Your task to perform on an android device: What's the weather going to be tomorrow? Image 0: 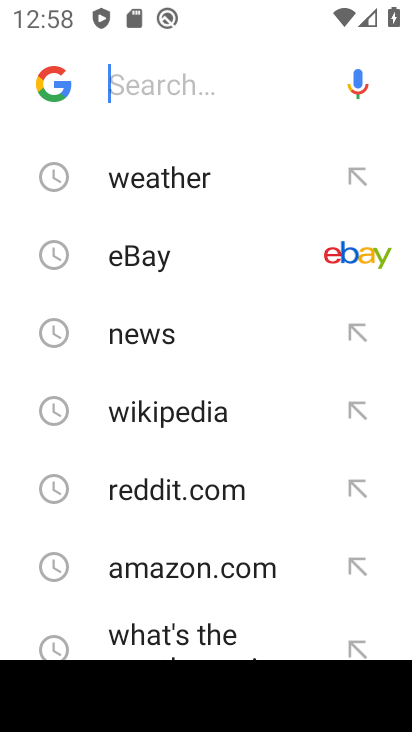
Step 0: press home button
Your task to perform on an android device: What's the weather going to be tomorrow? Image 1: 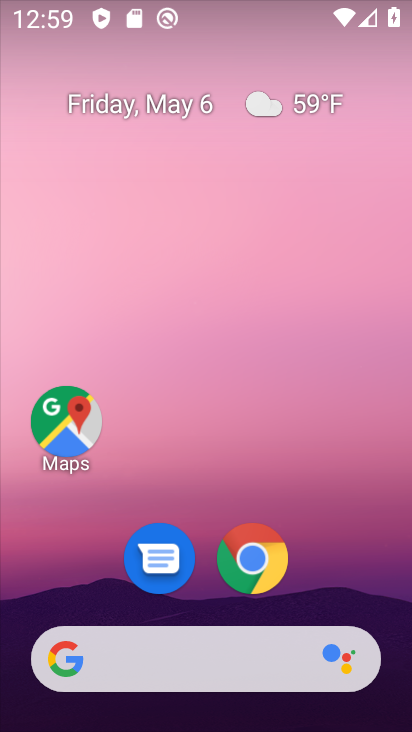
Step 1: click (257, 100)
Your task to perform on an android device: What's the weather going to be tomorrow? Image 2: 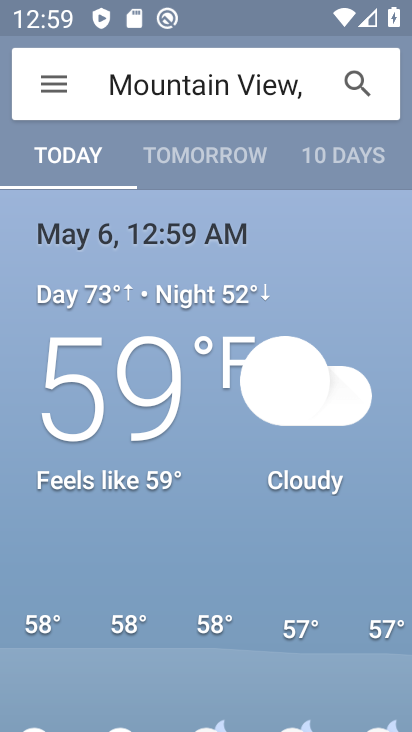
Step 2: click (201, 149)
Your task to perform on an android device: What's the weather going to be tomorrow? Image 3: 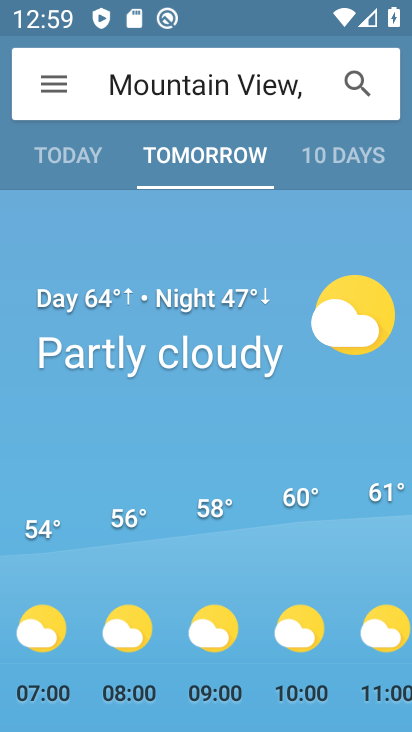
Step 3: task complete